Your task to perform on an android device: turn on javascript in the chrome app Image 0: 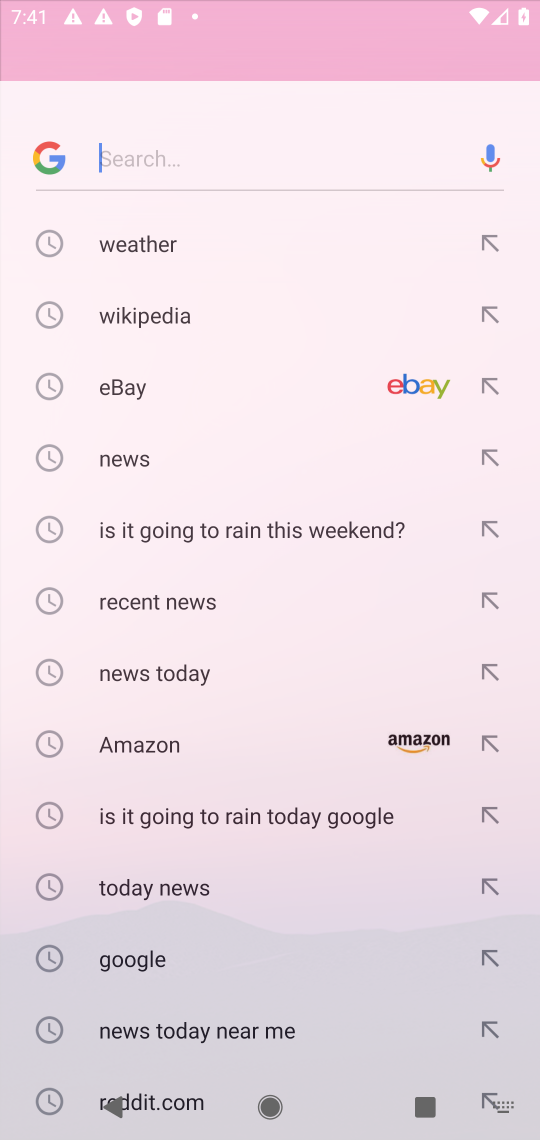
Step 0: press home button
Your task to perform on an android device: turn on javascript in the chrome app Image 1: 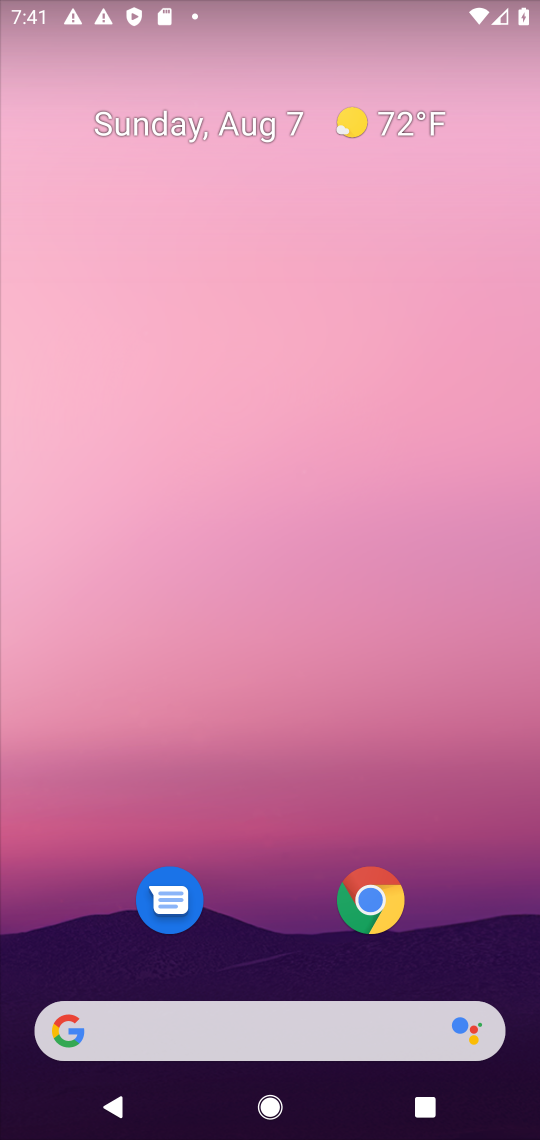
Step 1: click (381, 891)
Your task to perform on an android device: turn on javascript in the chrome app Image 2: 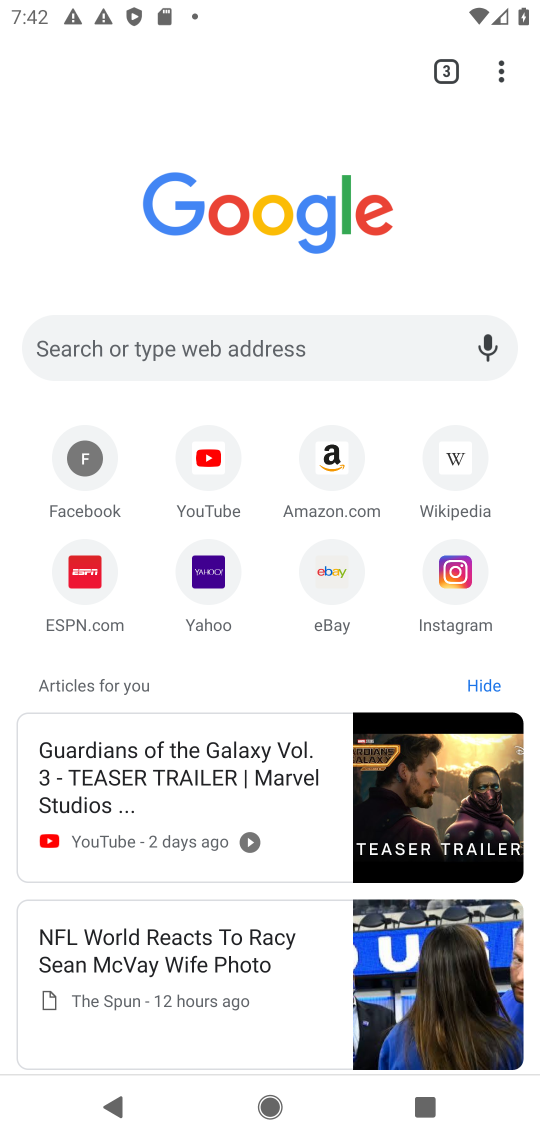
Step 2: drag from (501, 68) to (249, 608)
Your task to perform on an android device: turn on javascript in the chrome app Image 3: 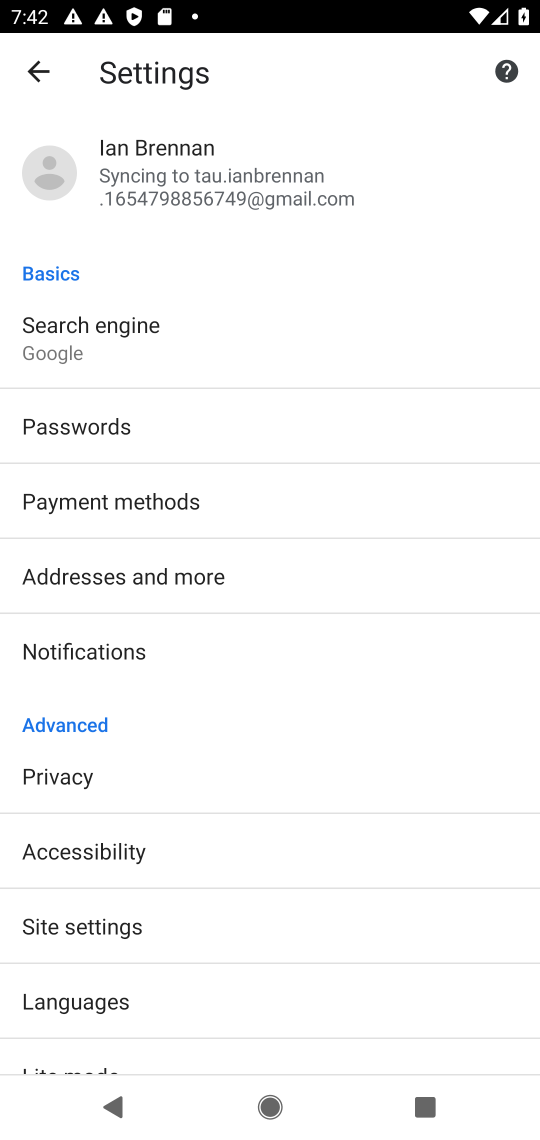
Step 3: click (133, 926)
Your task to perform on an android device: turn on javascript in the chrome app Image 4: 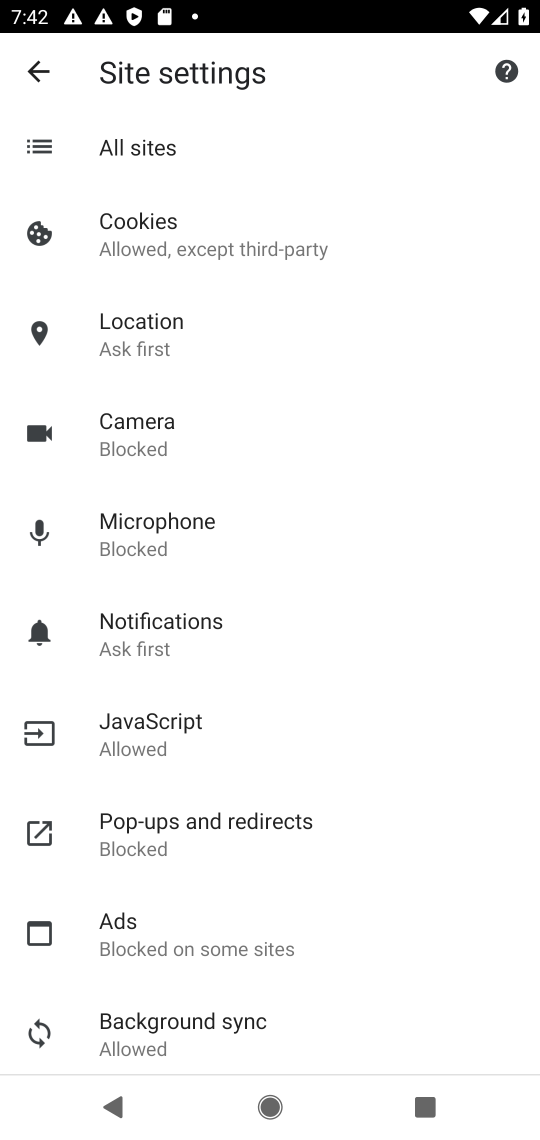
Step 4: click (159, 732)
Your task to perform on an android device: turn on javascript in the chrome app Image 5: 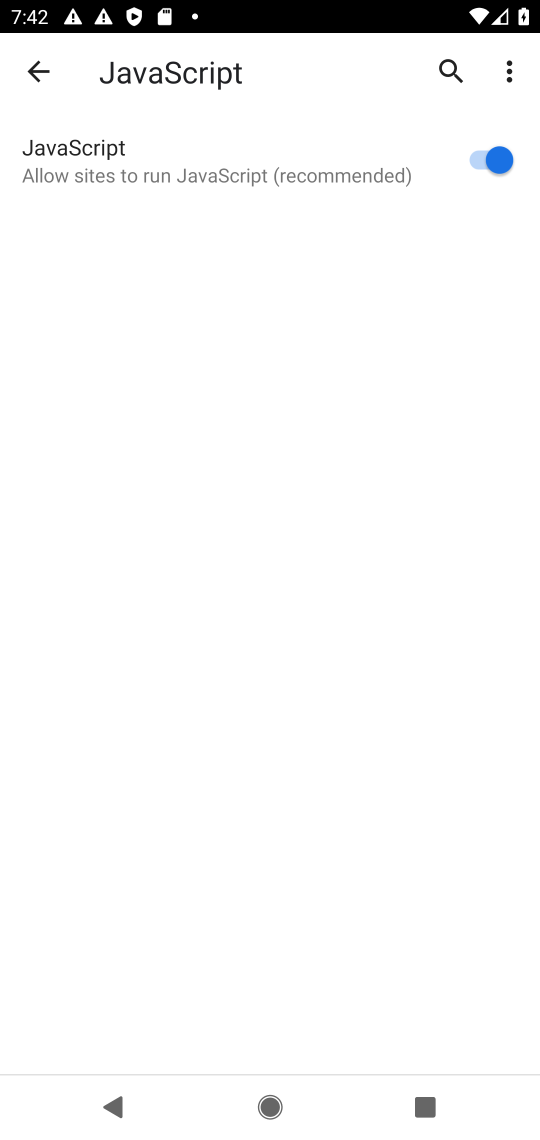
Step 5: task complete